Your task to perform on an android device: open chrome and create a bookmark for the current page Image 0: 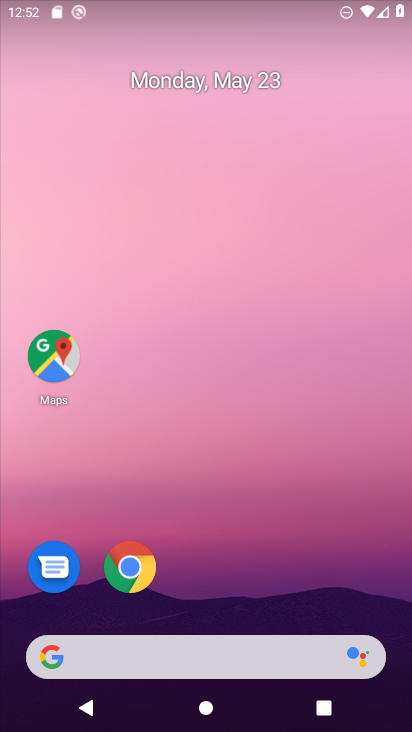
Step 0: click (130, 566)
Your task to perform on an android device: open chrome and create a bookmark for the current page Image 1: 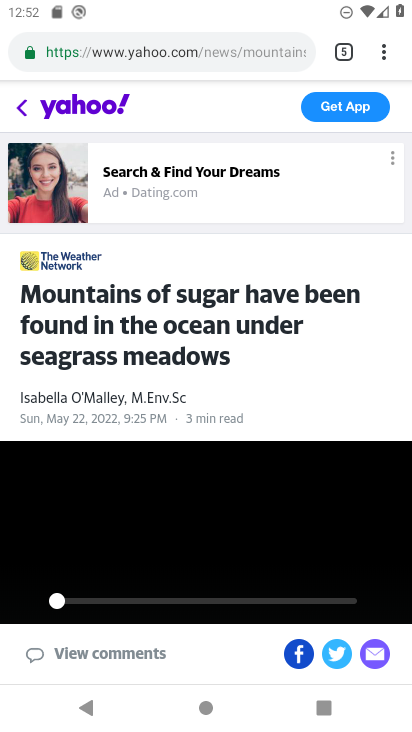
Step 1: click (394, 48)
Your task to perform on an android device: open chrome and create a bookmark for the current page Image 2: 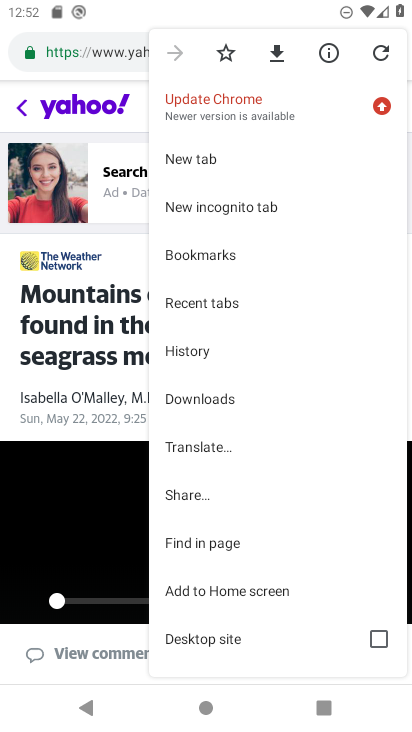
Step 2: click (234, 55)
Your task to perform on an android device: open chrome and create a bookmark for the current page Image 3: 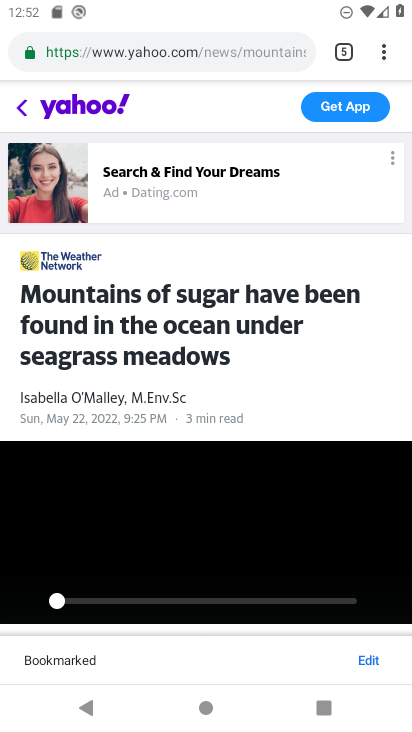
Step 3: click (391, 49)
Your task to perform on an android device: open chrome and create a bookmark for the current page Image 4: 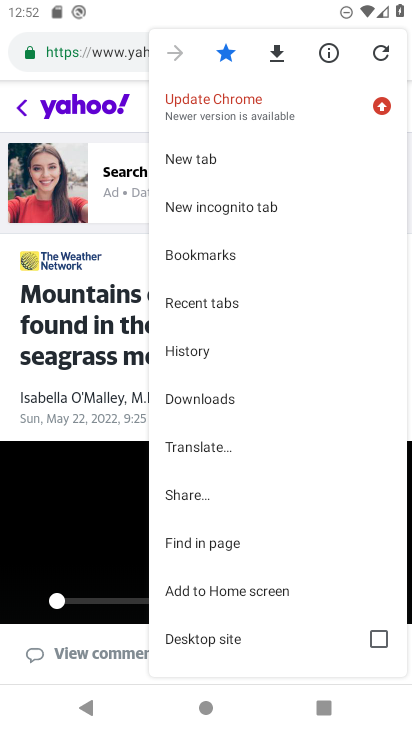
Step 4: task complete